Your task to perform on an android device: check battery use Image 0: 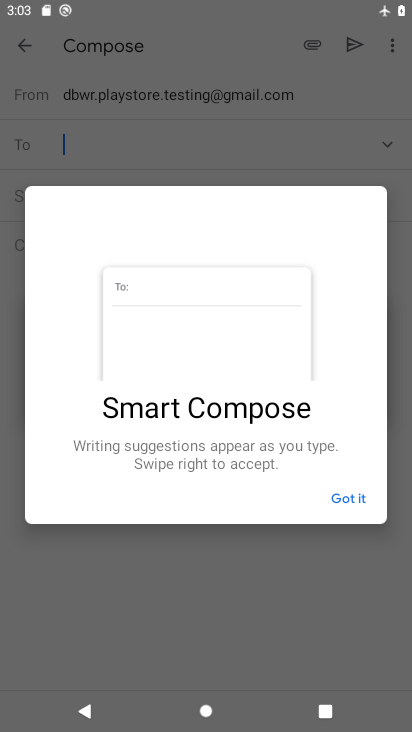
Step 0: press home button
Your task to perform on an android device: check battery use Image 1: 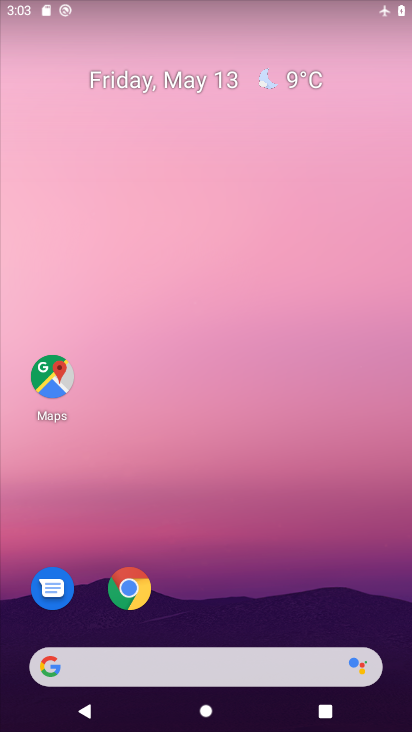
Step 1: drag from (304, 613) to (279, 0)
Your task to perform on an android device: check battery use Image 2: 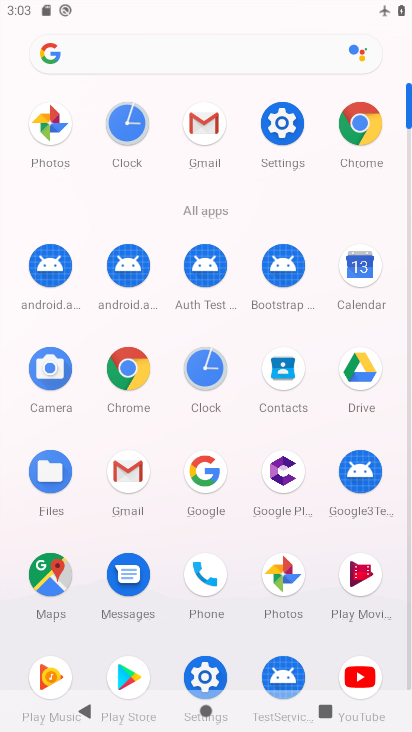
Step 2: click (291, 134)
Your task to perform on an android device: check battery use Image 3: 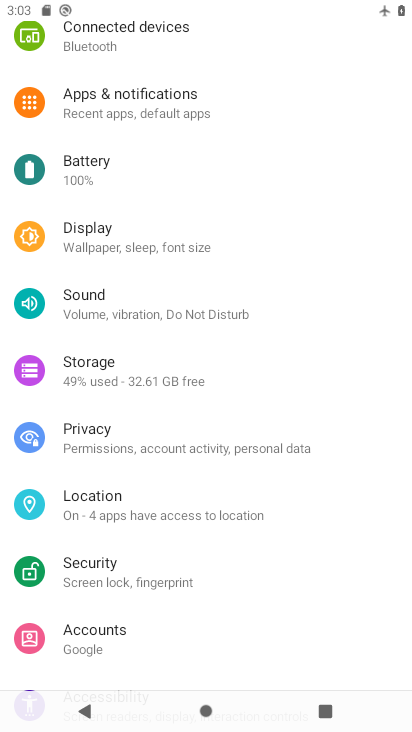
Step 3: click (147, 172)
Your task to perform on an android device: check battery use Image 4: 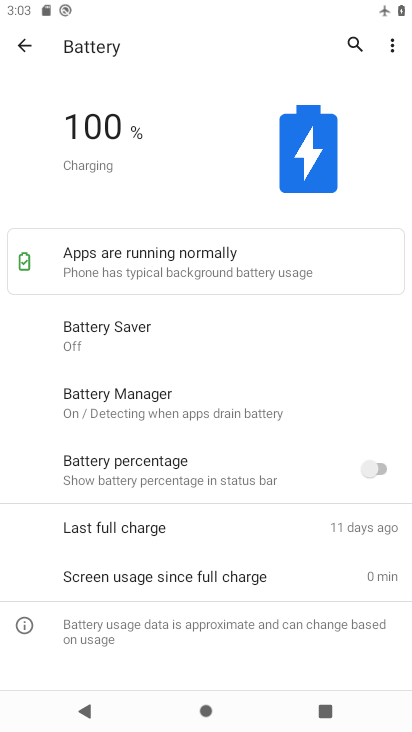
Step 4: click (390, 47)
Your task to perform on an android device: check battery use Image 5: 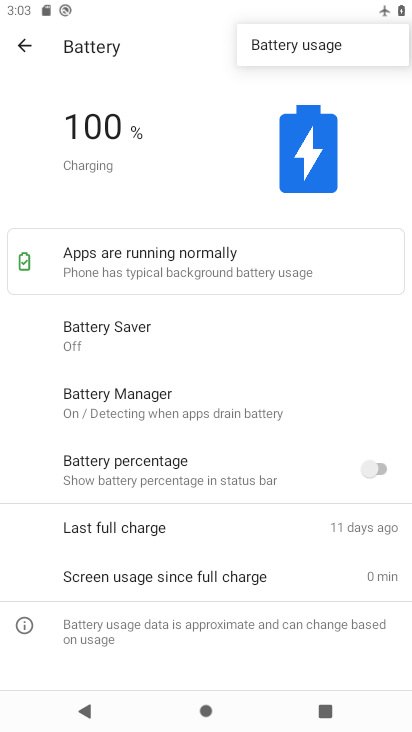
Step 5: click (309, 37)
Your task to perform on an android device: check battery use Image 6: 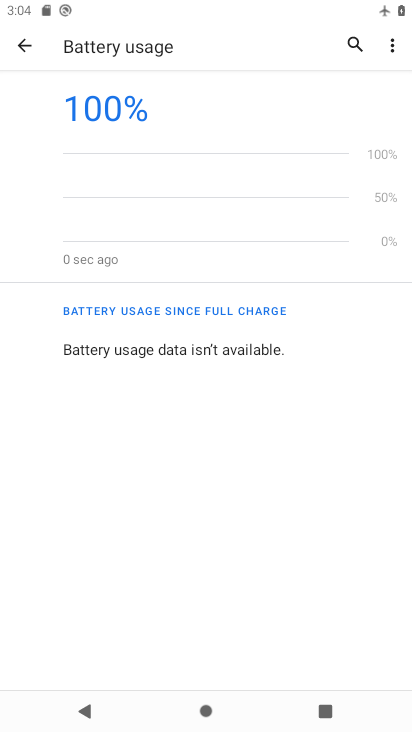
Step 6: task complete